Your task to perform on an android device: turn off sleep mode Image 0: 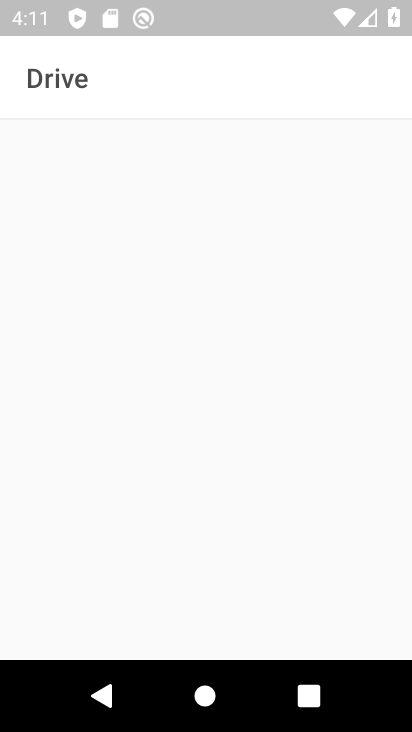
Step 0: press home button
Your task to perform on an android device: turn off sleep mode Image 1: 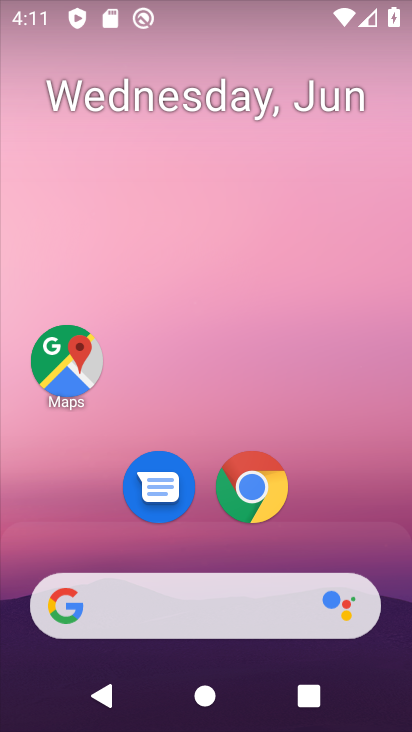
Step 1: drag from (327, 466) to (297, 70)
Your task to perform on an android device: turn off sleep mode Image 2: 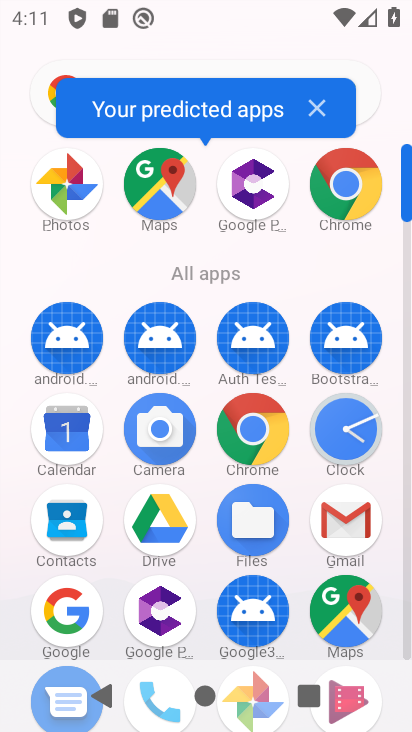
Step 2: drag from (200, 496) to (233, 226)
Your task to perform on an android device: turn off sleep mode Image 3: 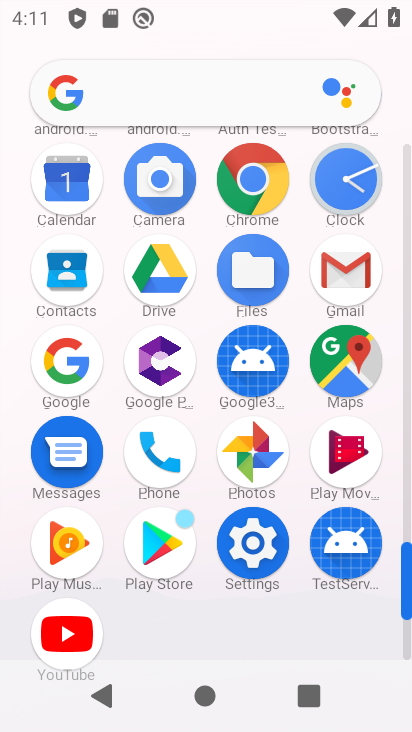
Step 3: click (252, 559)
Your task to perform on an android device: turn off sleep mode Image 4: 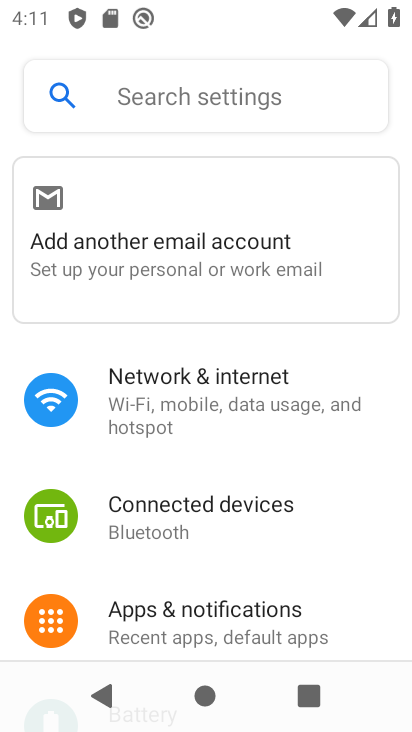
Step 4: drag from (333, 576) to (367, 218)
Your task to perform on an android device: turn off sleep mode Image 5: 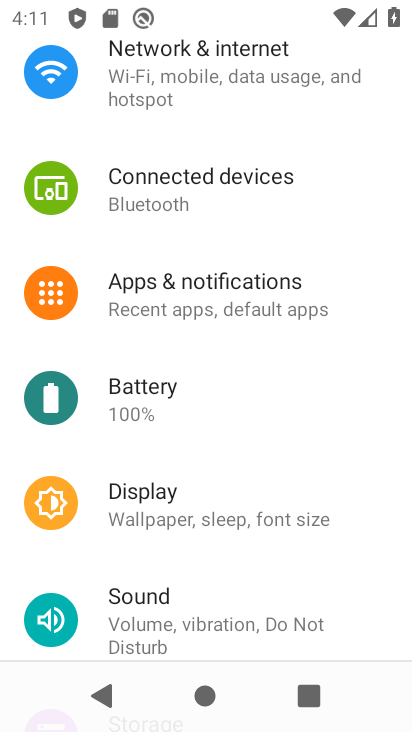
Step 5: click (160, 493)
Your task to perform on an android device: turn off sleep mode Image 6: 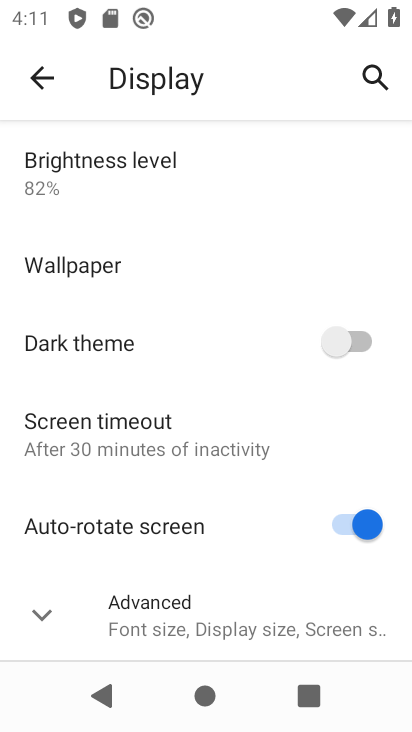
Step 6: click (174, 420)
Your task to perform on an android device: turn off sleep mode Image 7: 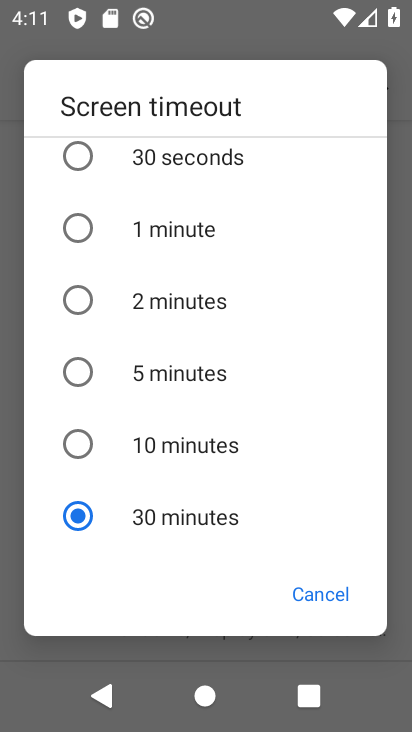
Step 7: task complete